Your task to perform on an android device: Go to Yahoo.com Image 0: 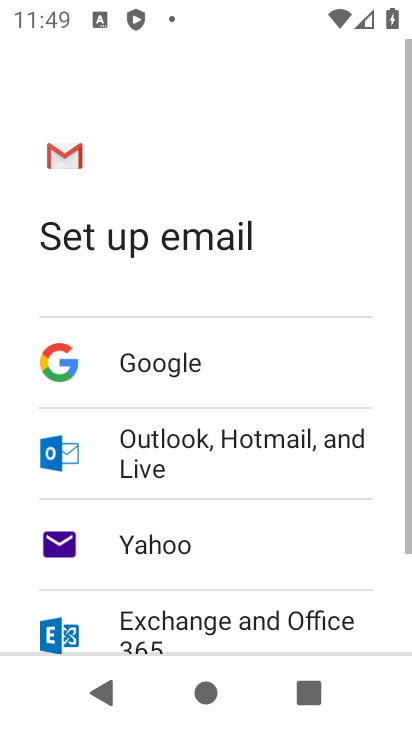
Step 0: press home button
Your task to perform on an android device: Go to Yahoo.com Image 1: 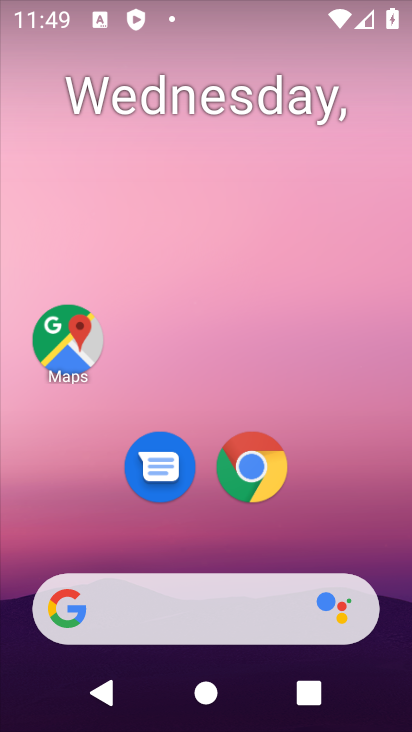
Step 1: click (181, 597)
Your task to perform on an android device: Go to Yahoo.com Image 2: 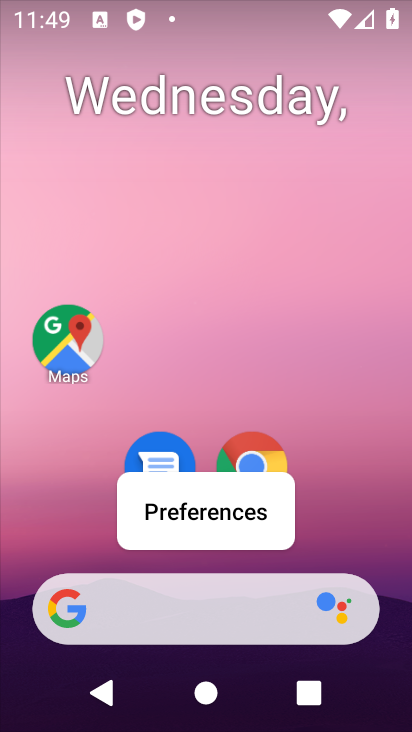
Step 2: click (186, 596)
Your task to perform on an android device: Go to Yahoo.com Image 3: 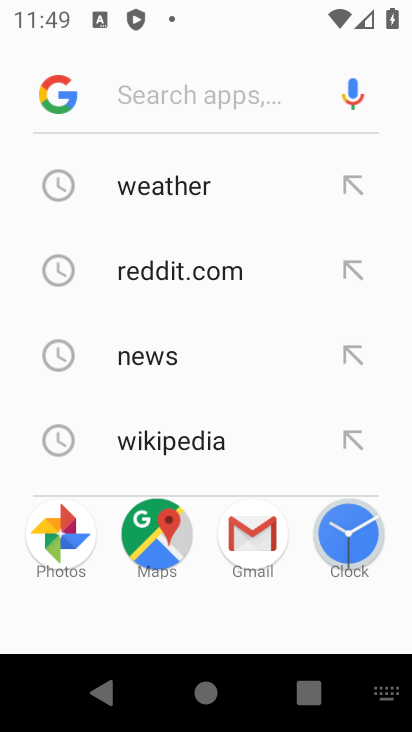
Step 3: type "Yahoo.com"
Your task to perform on an android device: Go to Yahoo.com Image 4: 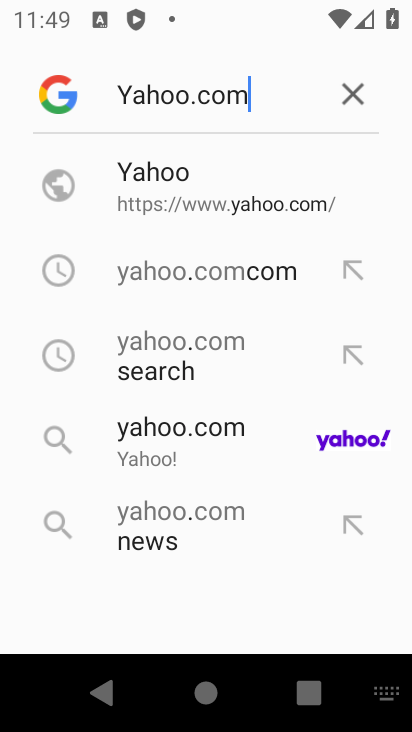
Step 4: click (195, 178)
Your task to perform on an android device: Go to Yahoo.com Image 5: 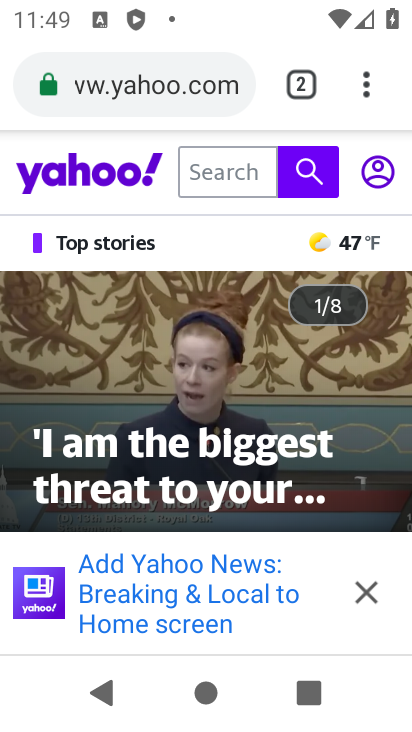
Step 5: task complete